Your task to perform on an android device: toggle notifications settings in the gmail app Image 0: 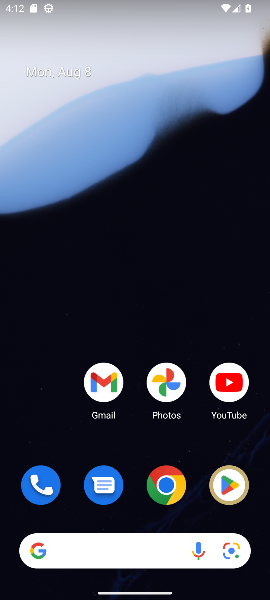
Step 0: drag from (221, 587) to (209, 119)
Your task to perform on an android device: toggle notifications settings in the gmail app Image 1: 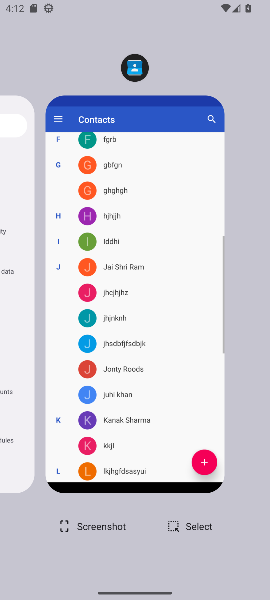
Step 1: press back button
Your task to perform on an android device: toggle notifications settings in the gmail app Image 2: 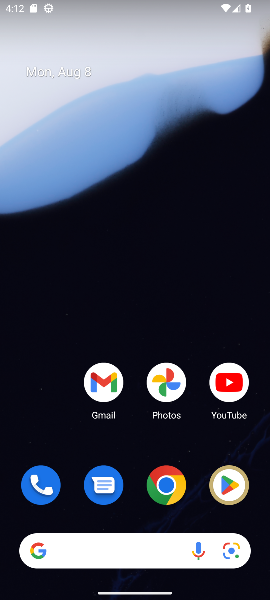
Step 2: drag from (168, 472) to (167, 121)
Your task to perform on an android device: toggle notifications settings in the gmail app Image 3: 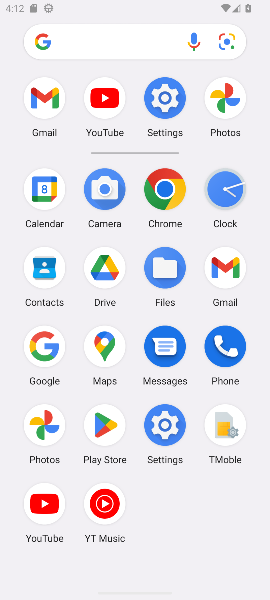
Step 3: drag from (215, 398) to (170, 128)
Your task to perform on an android device: toggle notifications settings in the gmail app Image 4: 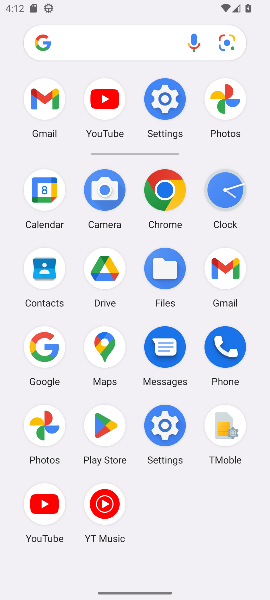
Step 4: click (227, 266)
Your task to perform on an android device: toggle notifications settings in the gmail app Image 5: 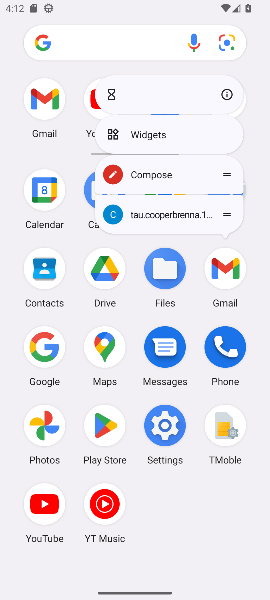
Step 5: click (218, 258)
Your task to perform on an android device: toggle notifications settings in the gmail app Image 6: 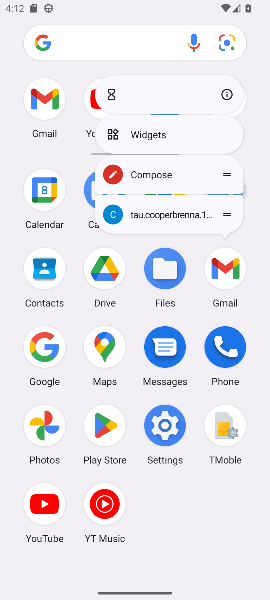
Step 6: click (229, 276)
Your task to perform on an android device: toggle notifications settings in the gmail app Image 7: 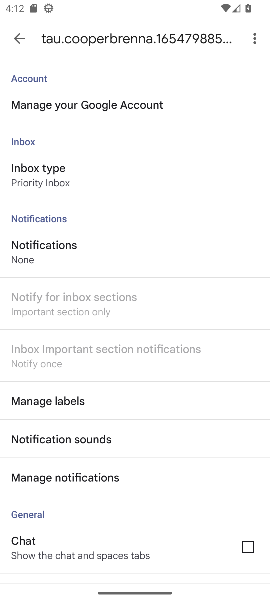
Step 7: click (48, 245)
Your task to perform on an android device: toggle notifications settings in the gmail app Image 8: 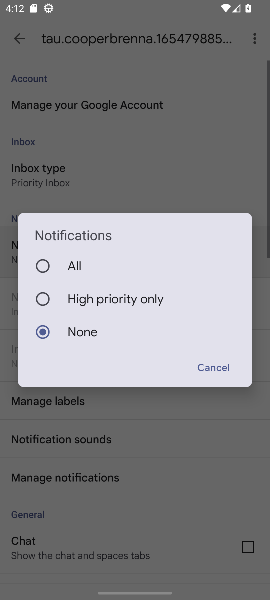
Step 8: click (43, 257)
Your task to perform on an android device: toggle notifications settings in the gmail app Image 9: 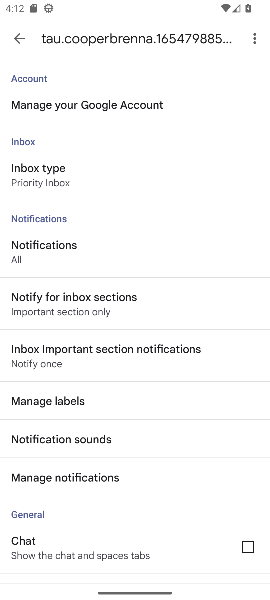
Step 9: task complete